Your task to perform on an android device: Go to location settings Image 0: 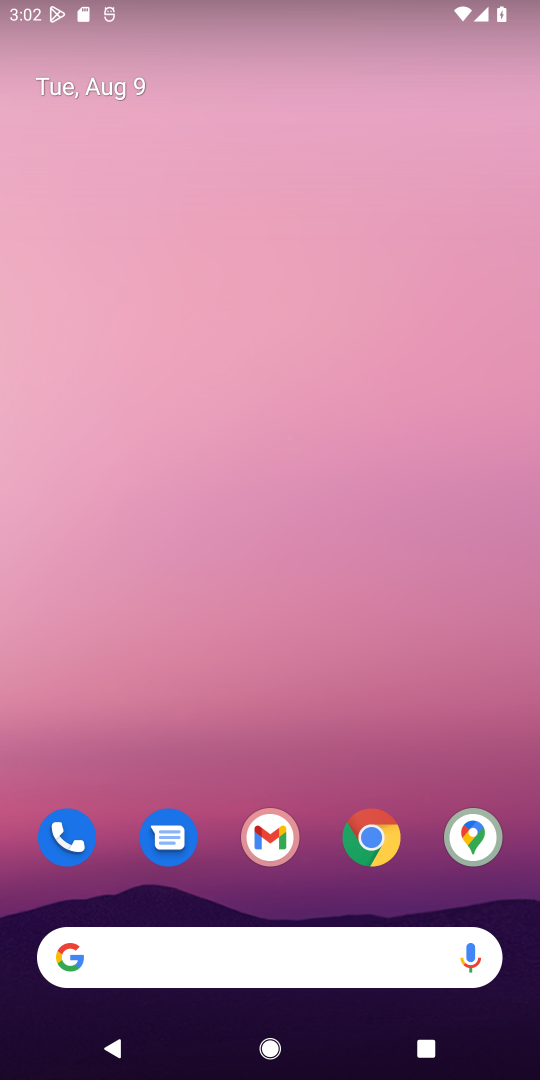
Step 0: drag from (203, 895) to (205, 313)
Your task to perform on an android device: Go to location settings Image 1: 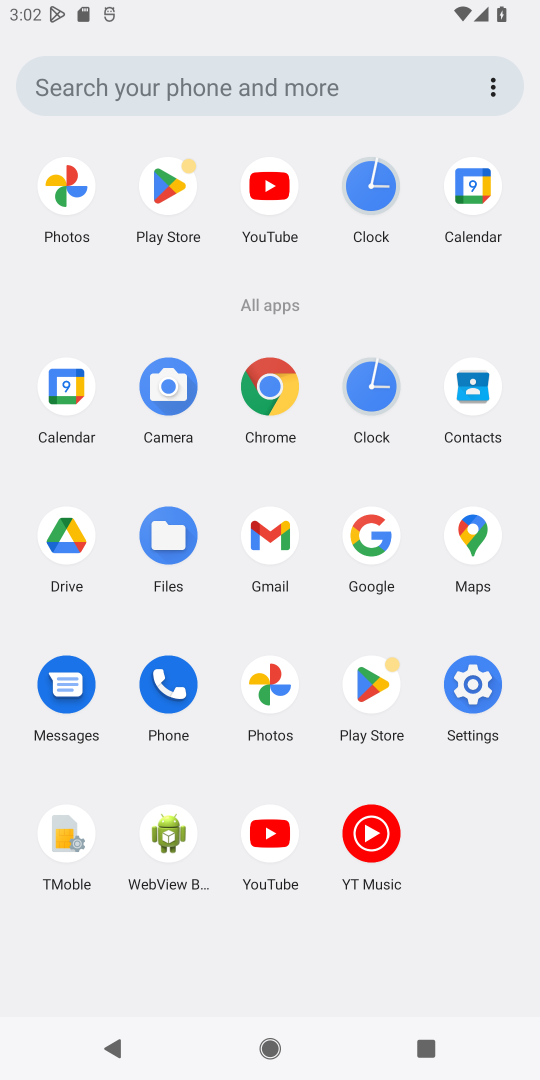
Step 1: click (472, 672)
Your task to perform on an android device: Go to location settings Image 2: 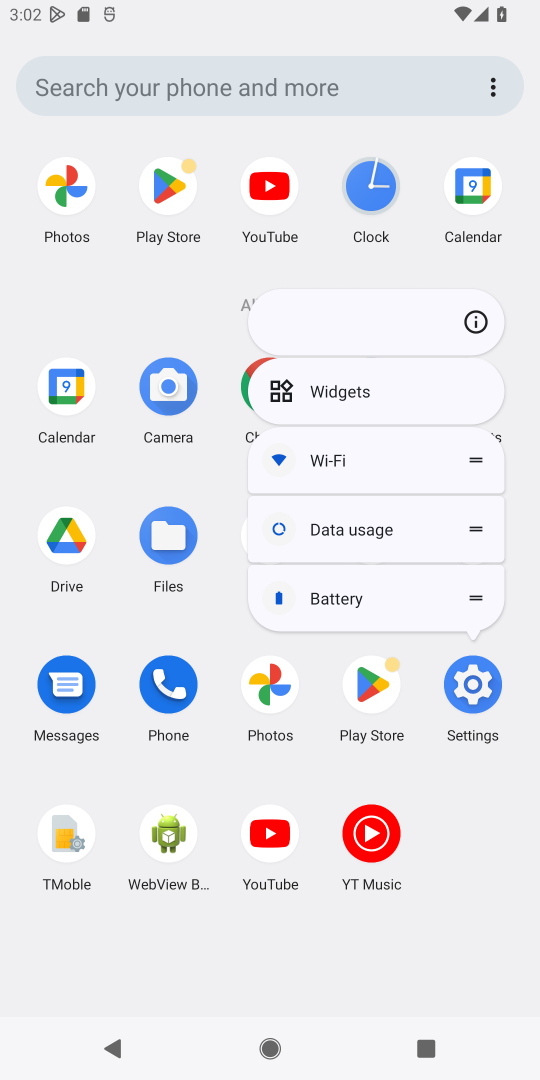
Step 2: click (472, 672)
Your task to perform on an android device: Go to location settings Image 3: 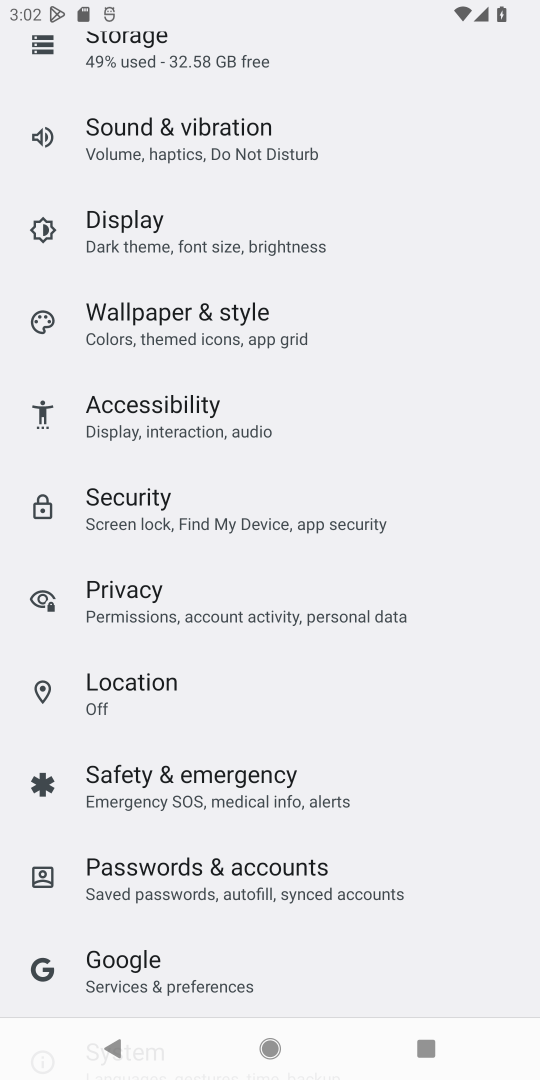
Step 3: click (188, 688)
Your task to perform on an android device: Go to location settings Image 4: 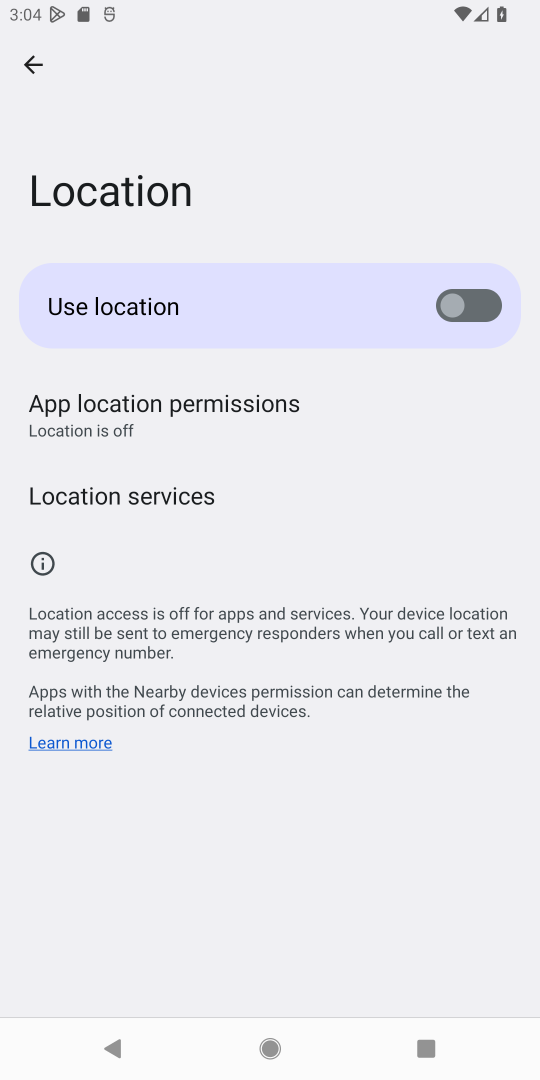
Step 4: task complete